Your task to perform on an android device: see creations saved in the google photos Image 0: 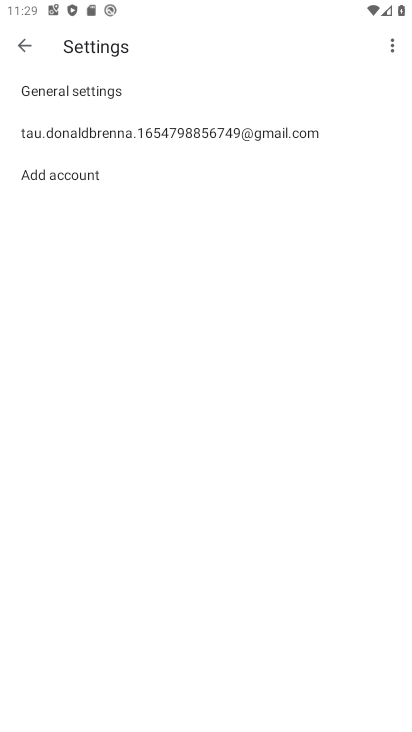
Step 0: press home button
Your task to perform on an android device: see creations saved in the google photos Image 1: 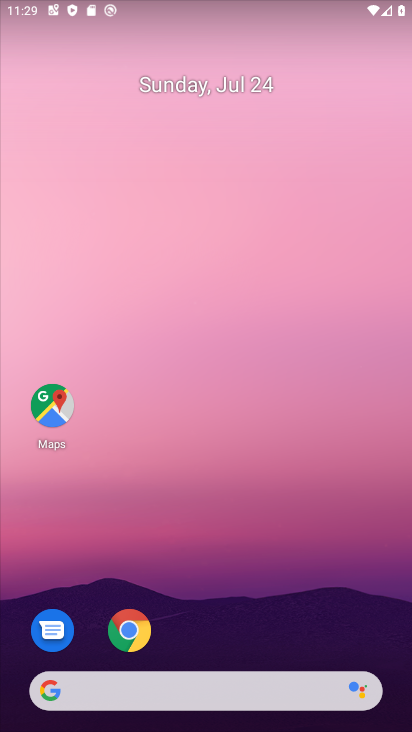
Step 1: drag from (180, 511) to (180, 147)
Your task to perform on an android device: see creations saved in the google photos Image 2: 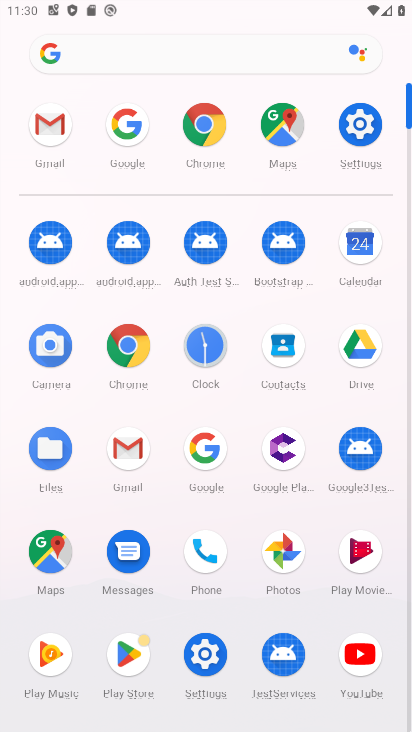
Step 2: click (286, 560)
Your task to perform on an android device: see creations saved in the google photos Image 3: 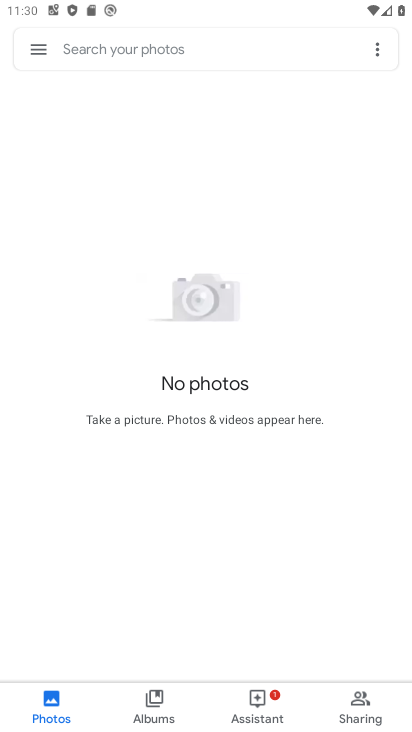
Step 3: click (176, 51)
Your task to perform on an android device: see creations saved in the google photos Image 4: 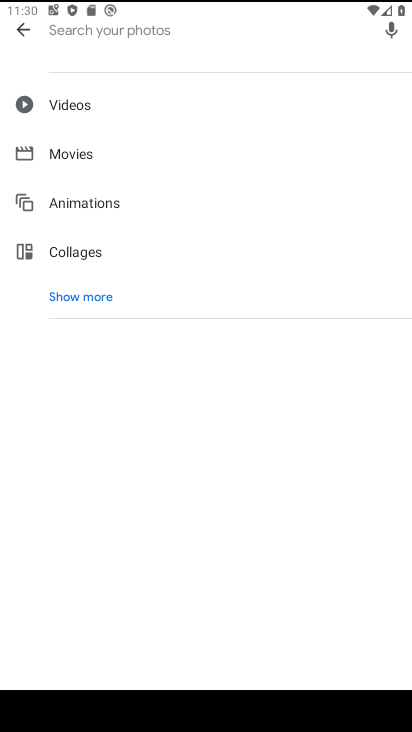
Step 4: click (67, 296)
Your task to perform on an android device: see creations saved in the google photos Image 5: 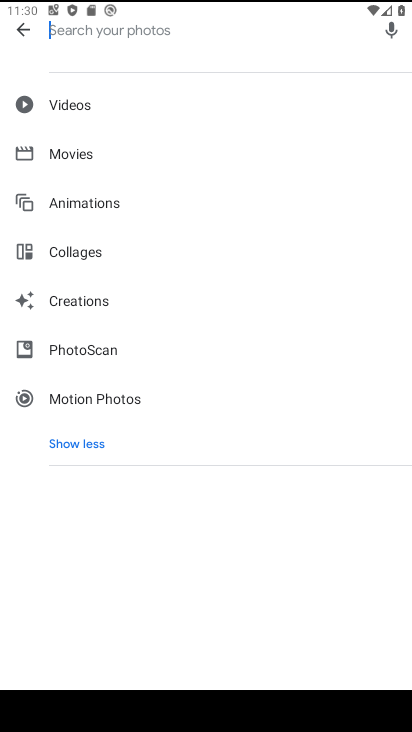
Step 5: click (79, 306)
Your task to perform on an android device: see creations saved in the google photos Image 6: 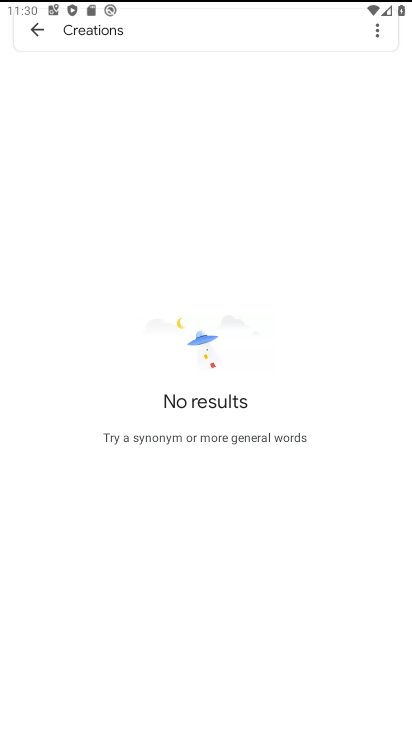
Step 6: task complete